Your task to perform on an android device: Go to ESPN.com Image 0: 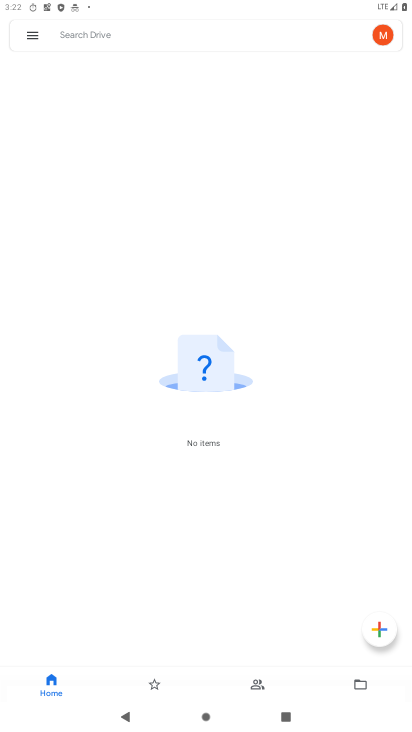
Step 0: press home button
Your task to perform on an android device: Go to ESPN.com Image 1: 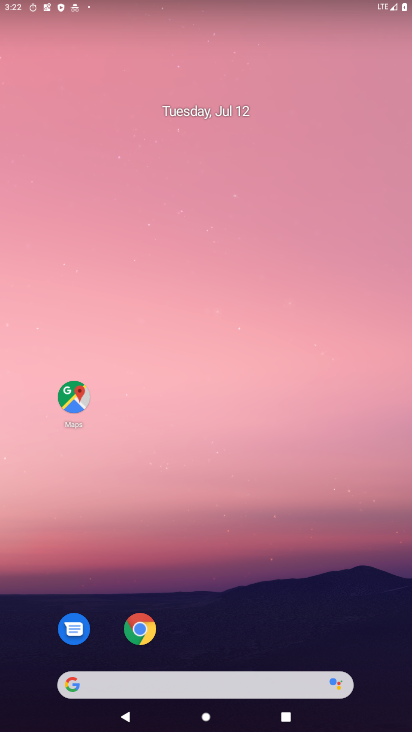
Step 1: click (143, 629)
Your task to perform on an android device: Go to ESPN.com Image 2: 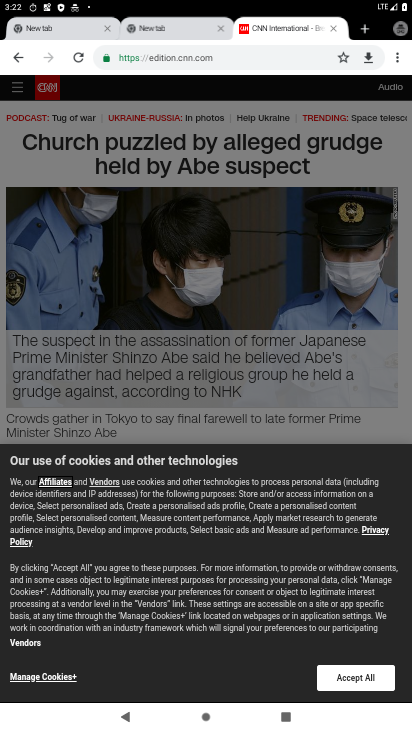
Step 2: click (202, 57)
Your task to perform on an android device: Go to ESPN.com Image 3: 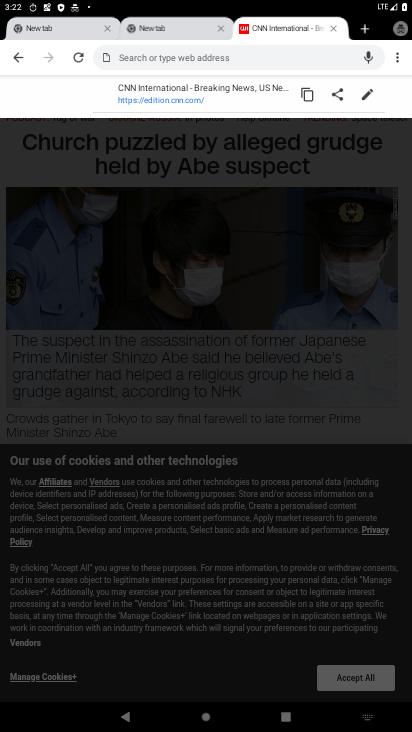
Step 3: click (159, 60)
Your task to perform on an android device: Go to ESPN.com Image 4: 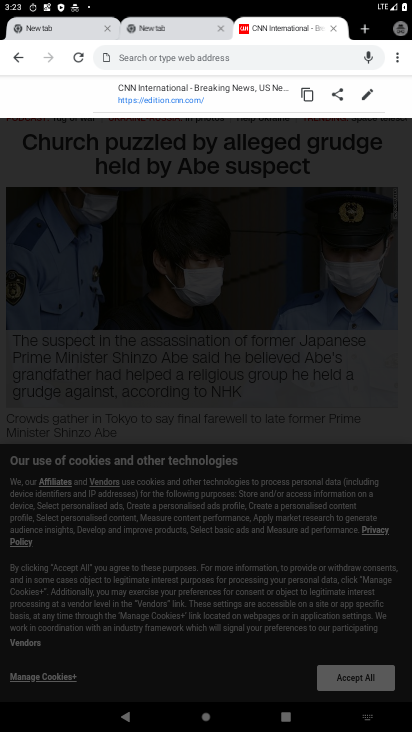
Step 4: type "ESPN.com"
Your task to perform on an android device: Go to ESPN.com Image 5: 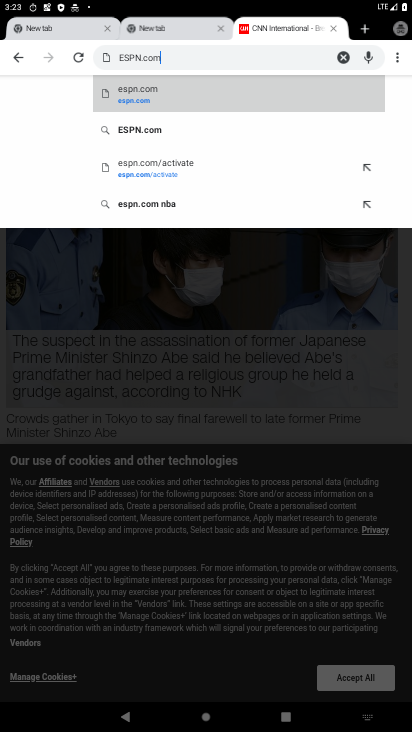
Step 5: click (139, 97)
Your task to perform on an android device: Go to ESPN.com Image 6: 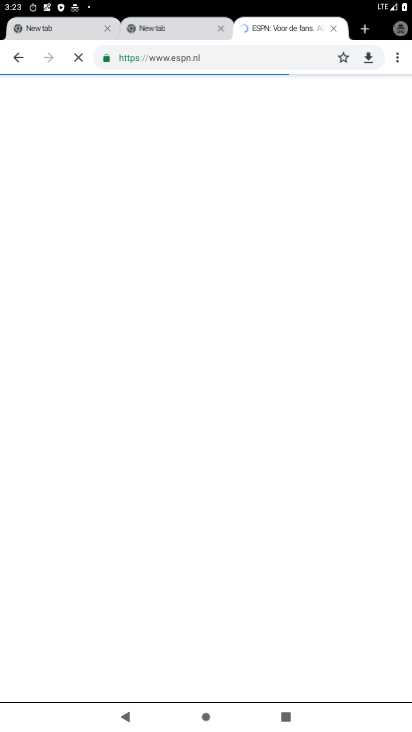
Step 6: task complete